Your task to perform on an android device: check google app version Image 0: 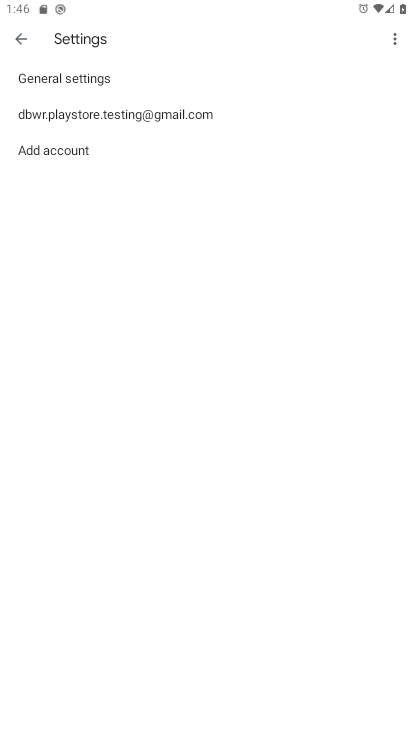
Step 0: press home button
Your task to perform on an android device: check google app version Image 1: 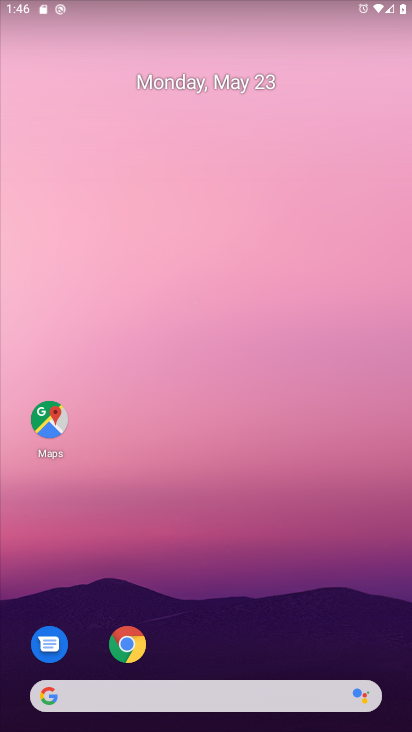
Step 1: drag from (203, 632) to (146, 163)
Your task to perform on an android device: check google app version Image 2: 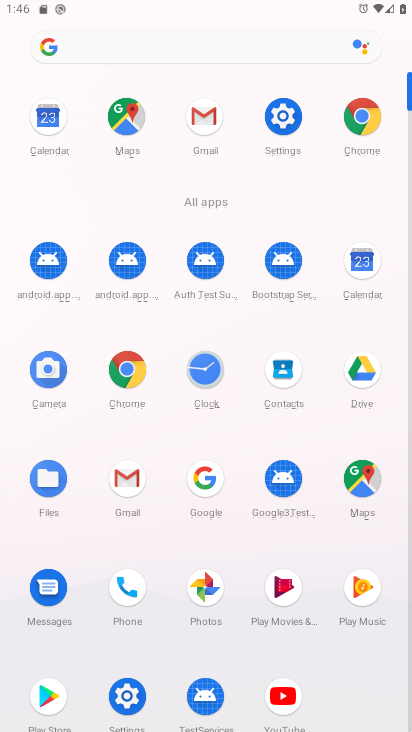
Step 2: click (213, 500)
Your task to perform on an android device: check google app version Image 3: 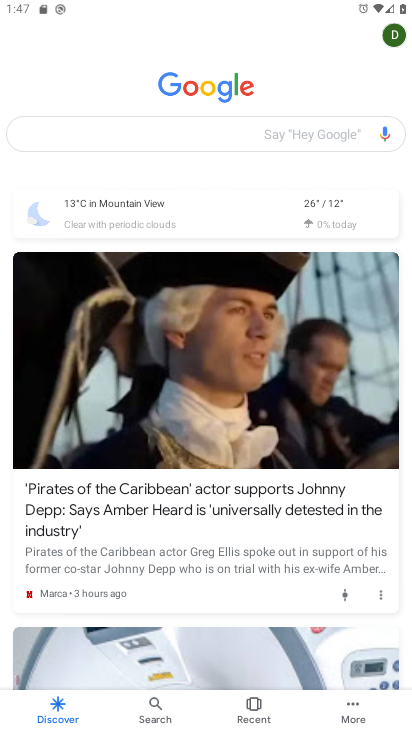
Step 3: click (356, 710)
Your task to perform on an android device: check google app version Image 4: 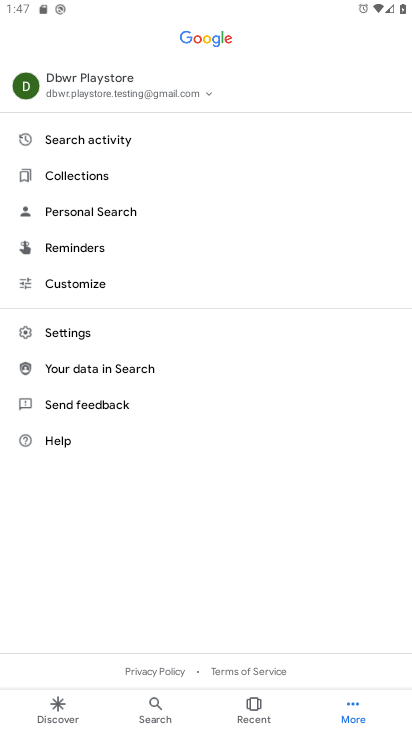
Step 4: click (59, 336)
Your task to perform on an android device: check google app version Image 5: 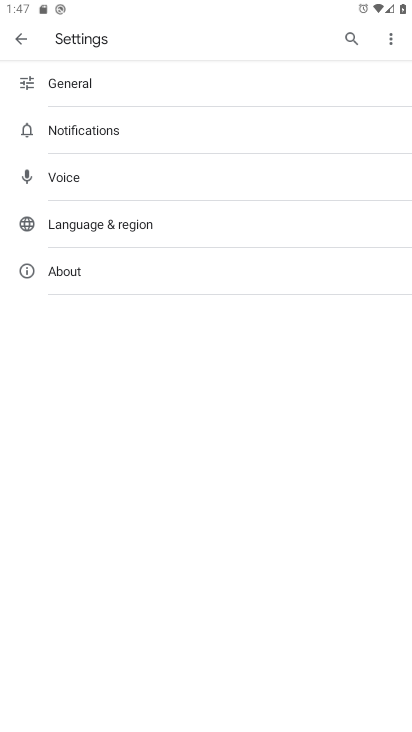
Step 5: click (63, 280)
Your task to perform on an android device: check google app version Image 6: 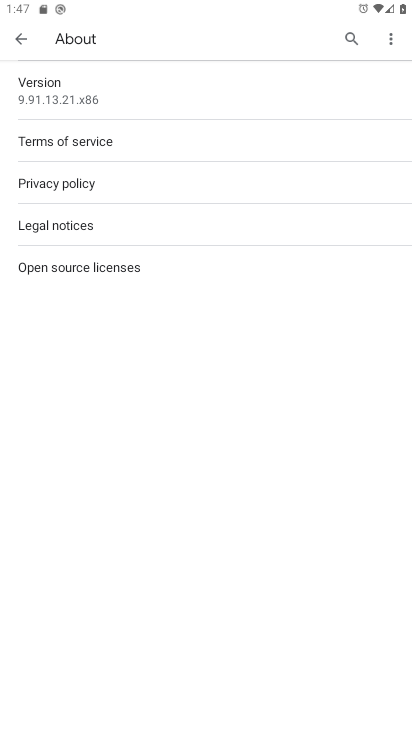
Step 6: task complete